Your task to perform on an android device: toggle notifications settings in the gmail app Image 0: 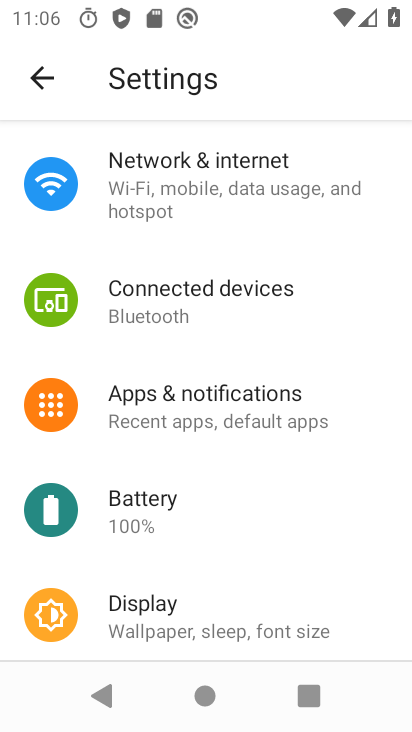
Step 0: press home button
Your task to perform on an android device: toggle notifications settings in the gmail app Image 1: 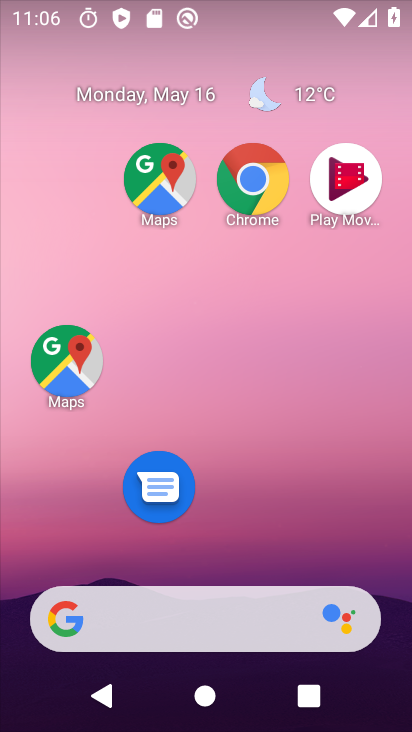
Step 1: drag from (240, 515) to (270, 85)
Your task to perform on an android device: toggle notifications settings in the gmail app Image 2: 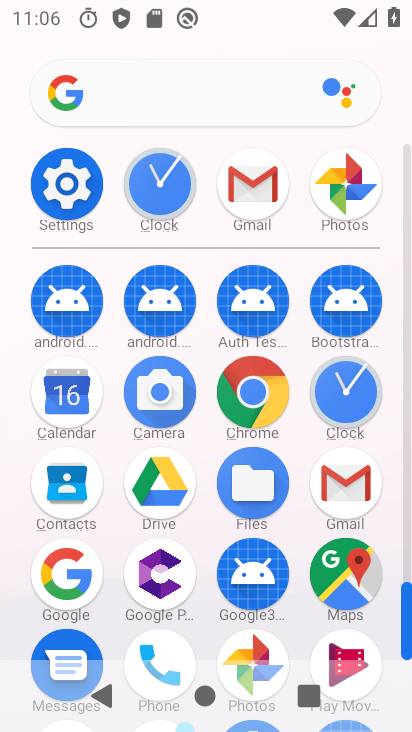
Step 2: click (257, 198)
Your task to perform on an android device: toggle notifications settings in the gmail app Image 3: 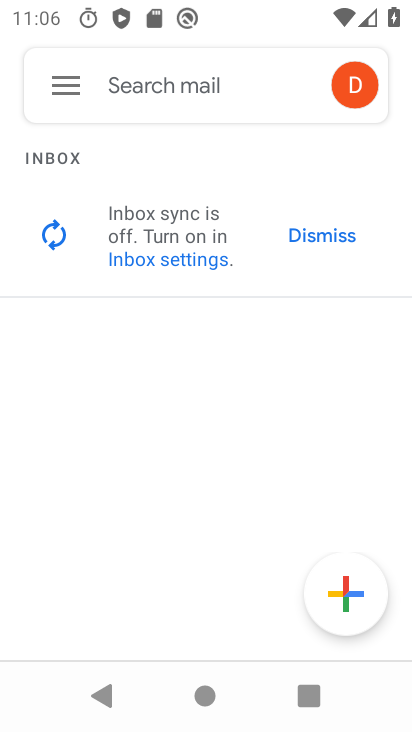
Step 3: click (58, 83)
Your task to perform on an android device: toggle notifications settings in the gmail app Image 4: 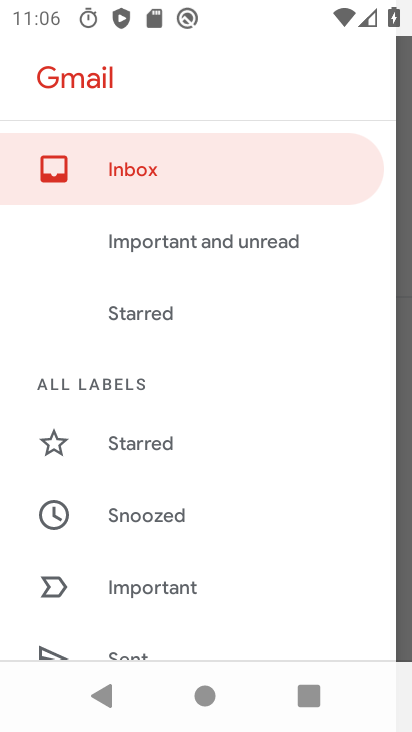
Step 4: drag from (142, 598) to (268, 208)
Your task to perform on an android device: toggle notifications settings in the gmail app Image 5: 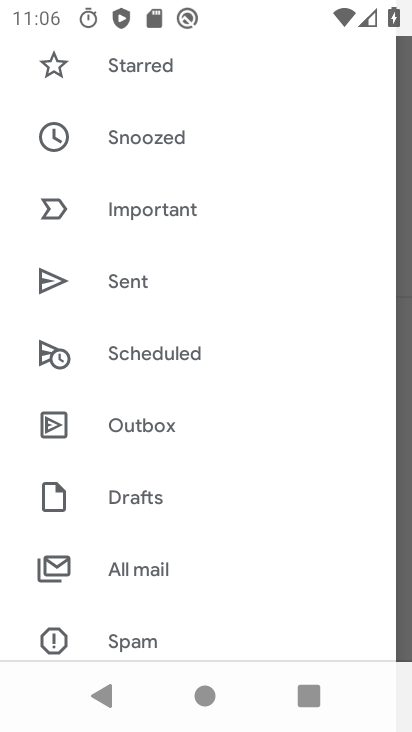
Step 5: drag from (155, 566) to (239, 138)
Your task to perform on an android device: toggle notifications settings in the gmail app Image 6: 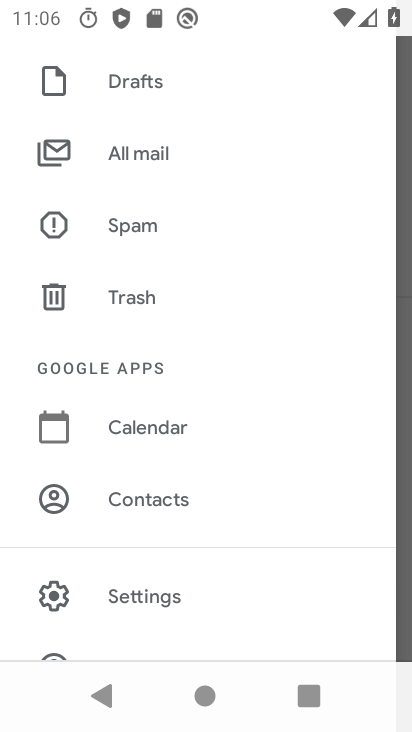
Step 6: click (141, 600)
Your task to perform on an android device: toggle notifications settings in the gmail app Image 7: 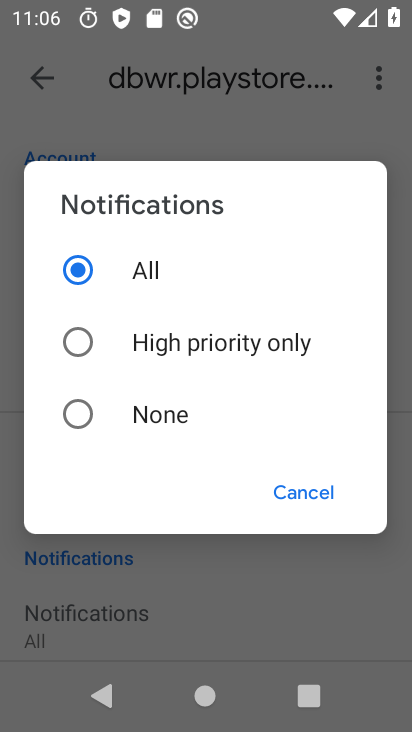
Step 7: click (72, 411)
Your task to perform on an android device: toggle notifications settings in the gmail app Image 8: 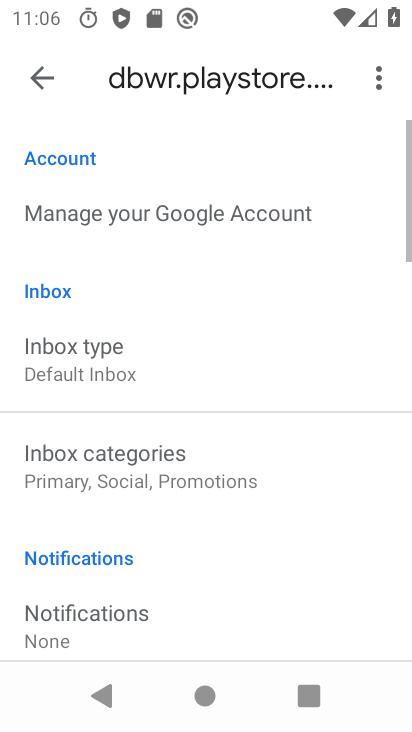
Step 8: task complete